Your task to perform on an android device: Go to Reddit.com Image 0: 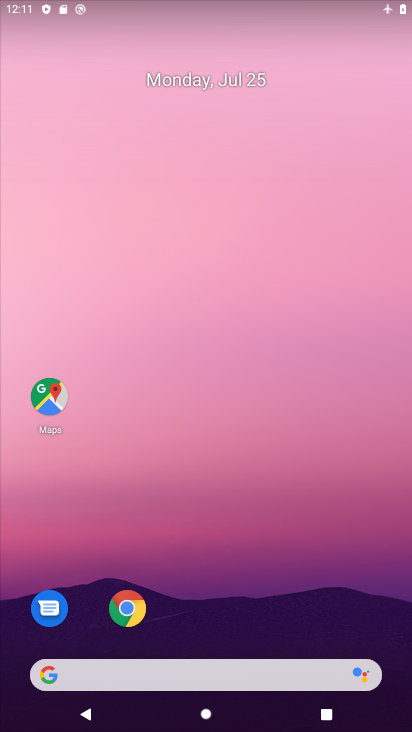
Step 0: drag from (251, 601) to (259, 165)
Your task to perform on an android device: Go to Reddit.com Image 1: 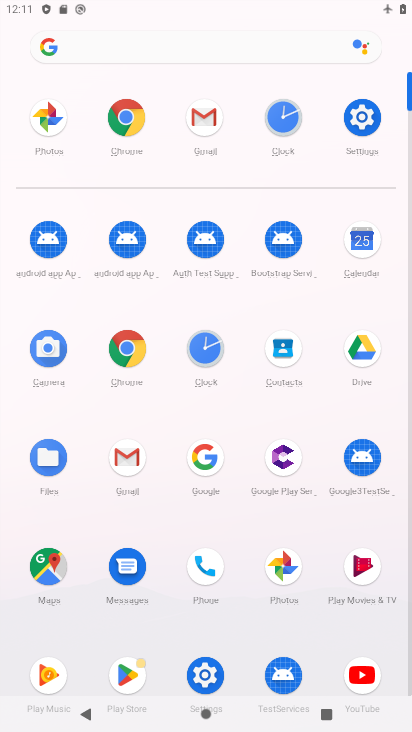
Step 1: click (141, 371)
Your task to perform on an android device: Go to Reddit.com Image 2: 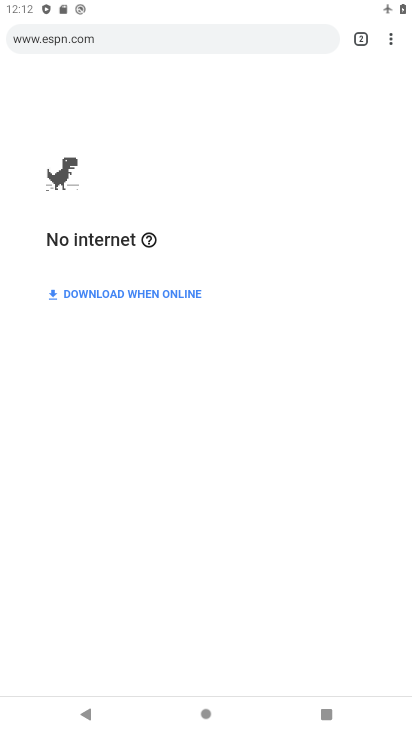
Step 2: task complete